Your task to perform on an android device: stop showing notifications on the lock screen Image 0: 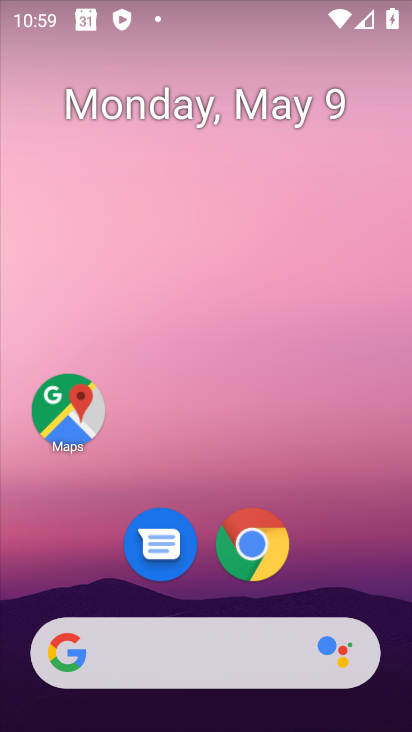
Step 0: drag from (76, 726) to (280, 57)
Your task to perform on an android device: stop showing notifications on the lock screen Image 1: 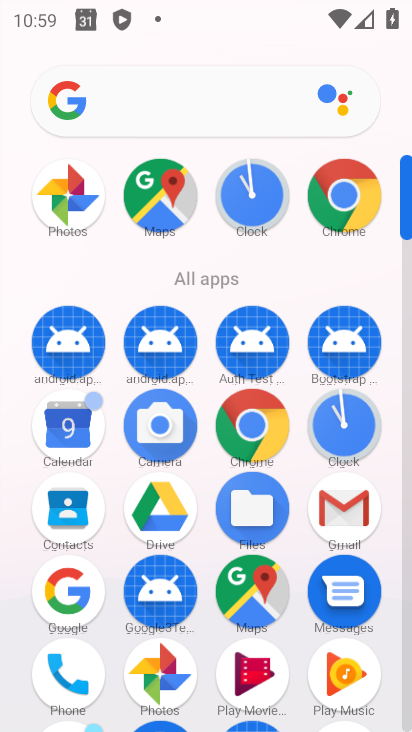
Step 1: drag from (14, 614) to (265, 62)
Your task to perform on an android device: stop showing notifications on the lock screen Image 2: 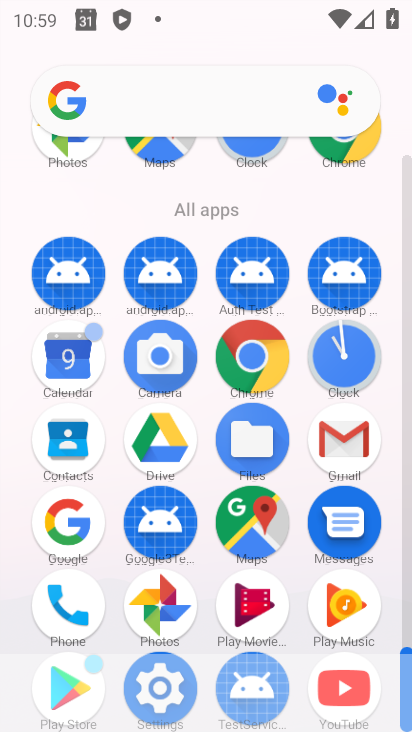
Step 2: click (169, 661)
Your task to perform on an android device: stop showing notifications on the lock screen Image 3: 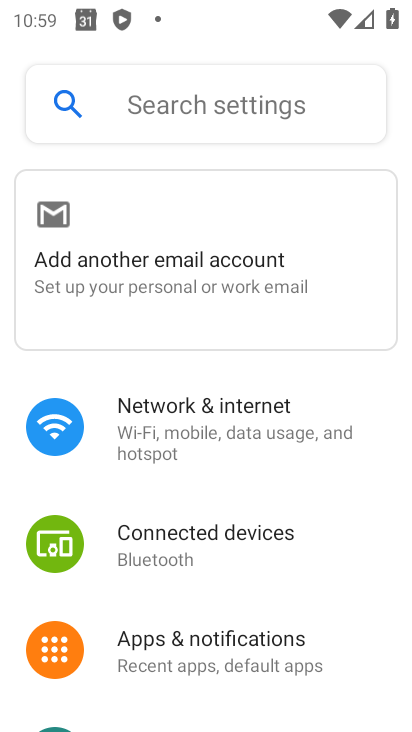
Step 3: click (184, 632)
Your task to perform on an android device: stop showing notifications on the lock screen Image 4: 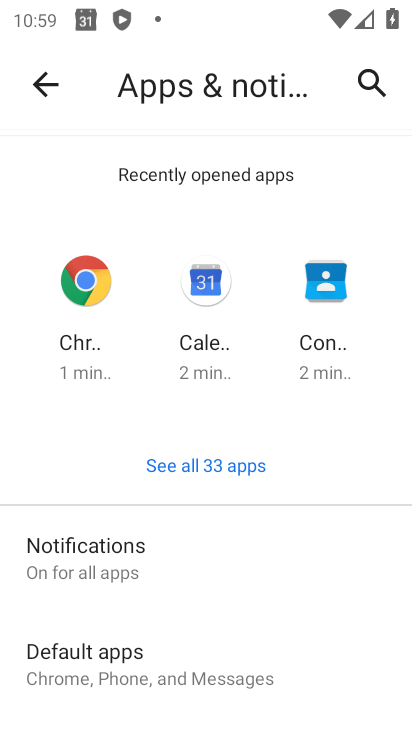
Step 4: click (188, 542)
Your task to perform on an android device: stop showing notifications on the lock screen Image 5: 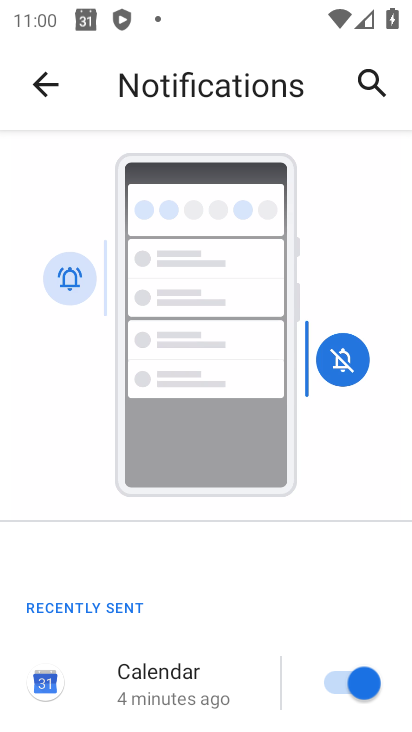
Step 5: drag from (124, 677) to (210, 14)
Your task to perform on an android device: stop showing notifications on the lock screen Image 6: 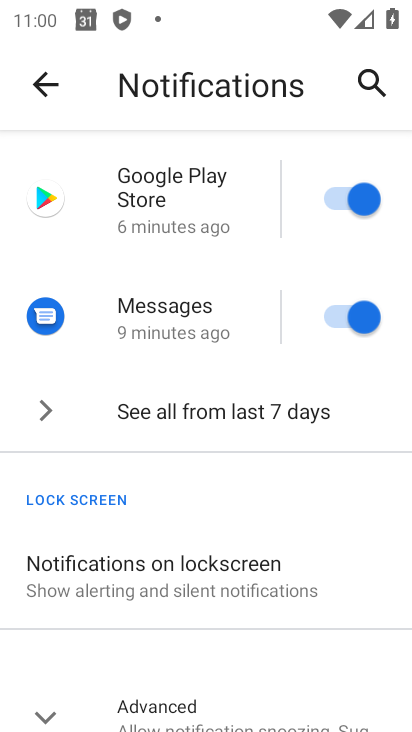
Step 6: click (142, 554)
Your task to perform on an android device: stop showing notifications on the lock screen Image 7: 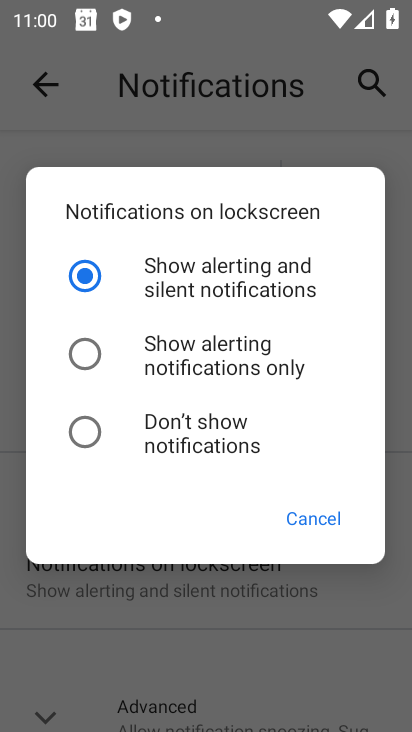
Step 7: click (211, 452)
Your task to perform on an android device: stop showing notifications on the lock screen Image 8: 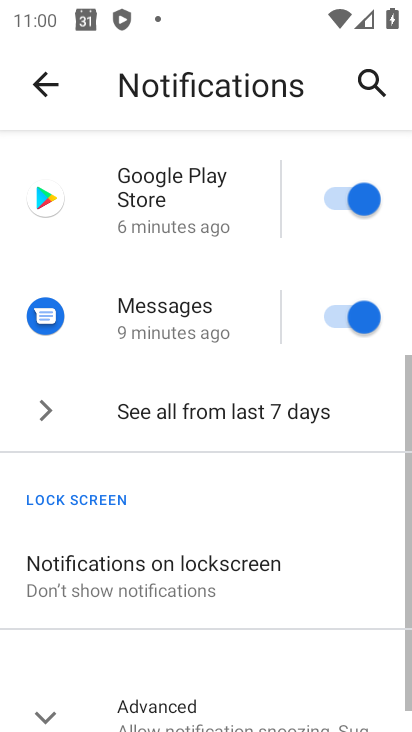
Step 8: task complete